Your task to perform on an android device: turn on notifications settings in the gmail app Image 0: 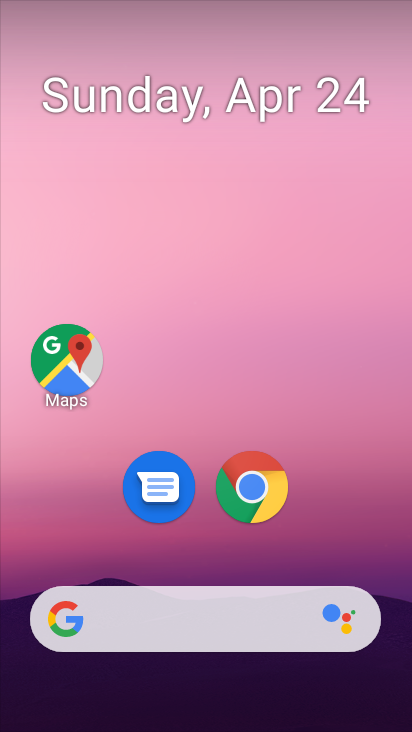
Step 0: drag from (314, 528) to (317, 35)
Your task to perform on an android device: turn on notifications settings in the gmail app Image 1: 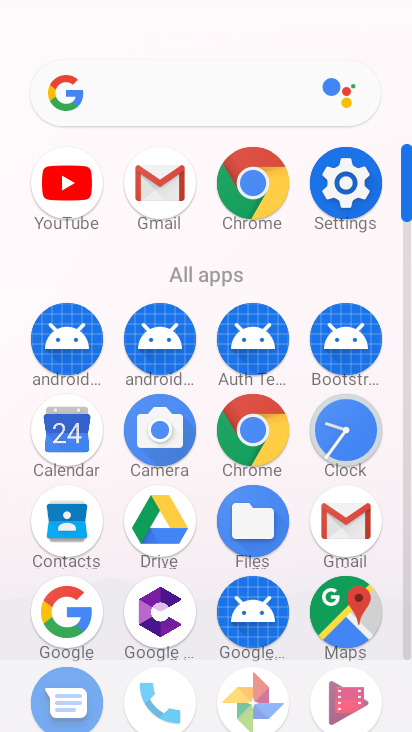
Step 1: click (344, 530)
Your task to perform on an android device: turn on notifications settings in the gmail app Image 2: 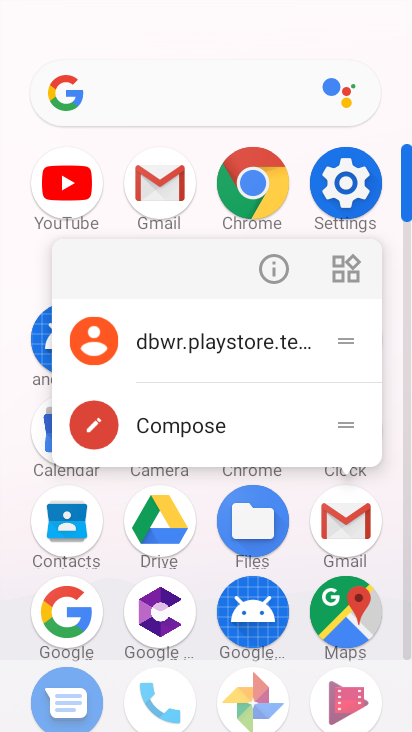
Step 2: click (268, 271)
Your task to perform on an android device: turn on notifications settings in the gmail app Image 3: 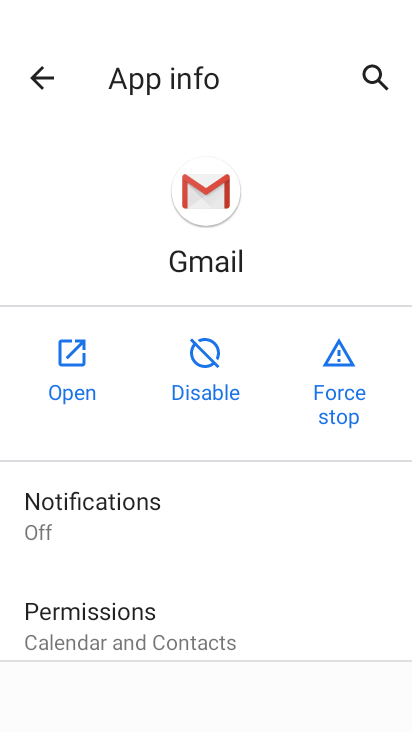
Step 3: click (87, 505)
Your task to perform on an android device: turn on notifications settings in the gmail app Image 4: 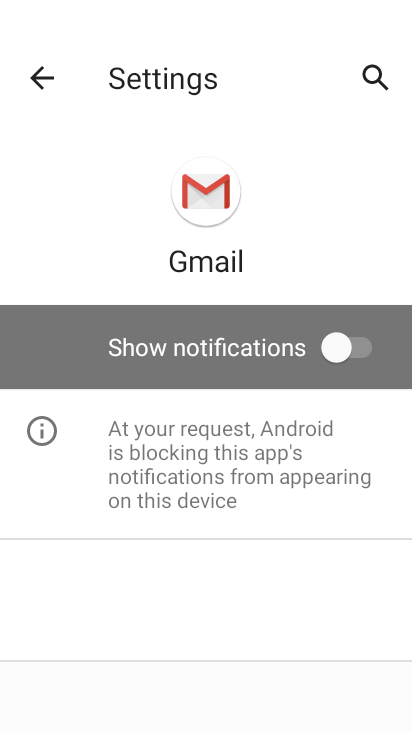
Step 4: click (357, 346)
Your task to perform on an android device: turn on notifications settings in the gmail app Image 5: 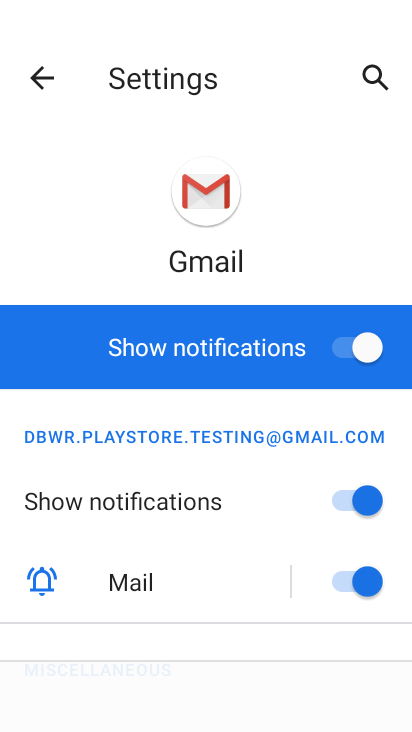
Step 5: task complete